Your task to perform on an android device: turn off picture-in-picture Image 0: 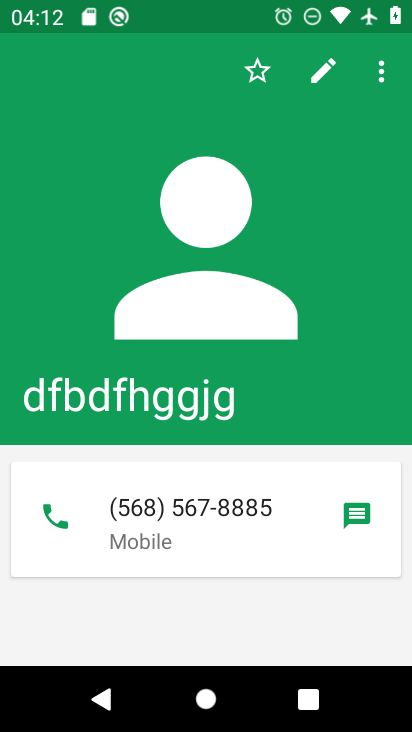
Step 0: press home button
Your task to perform on an android device: turn off picture-in-picture Image 1: 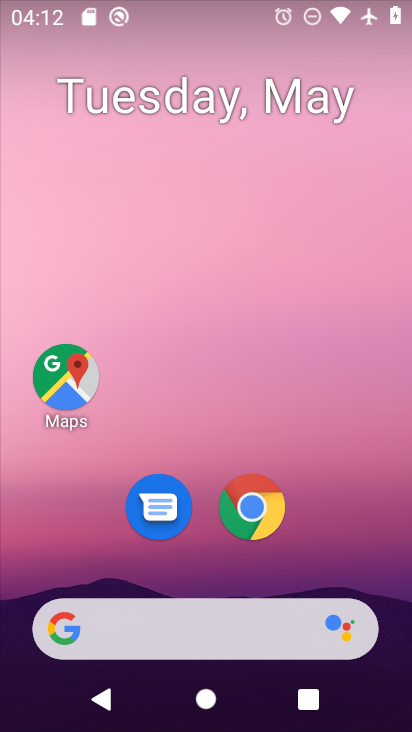
Step 1: click (241, 525)
Your task to perform on an android device: turn off picture-in-picture Image 2: 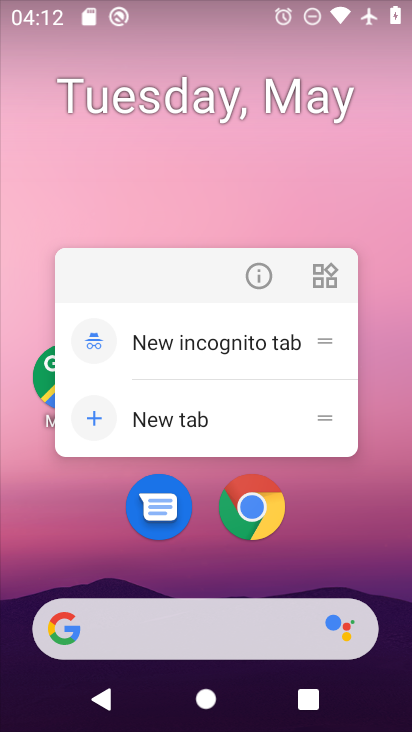
Step 2: click (250, 274)
Your task to perform on an android device: turn off picture-in-picture Image 3: 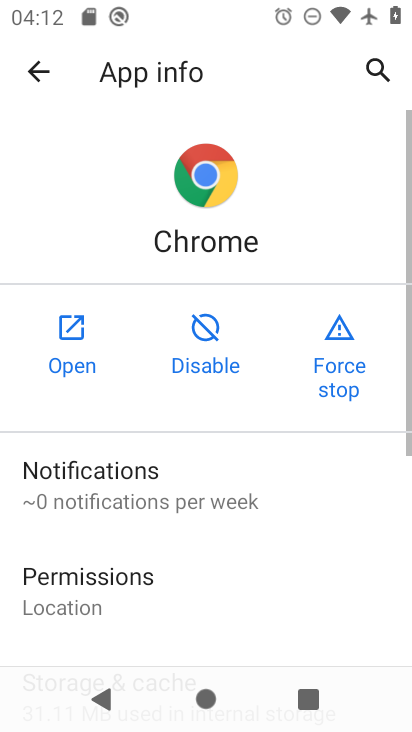
Step 3: drag from (181, 567) to (217, 173)
Your task to perform on an android device: turn off picture-in-picture Image 4: 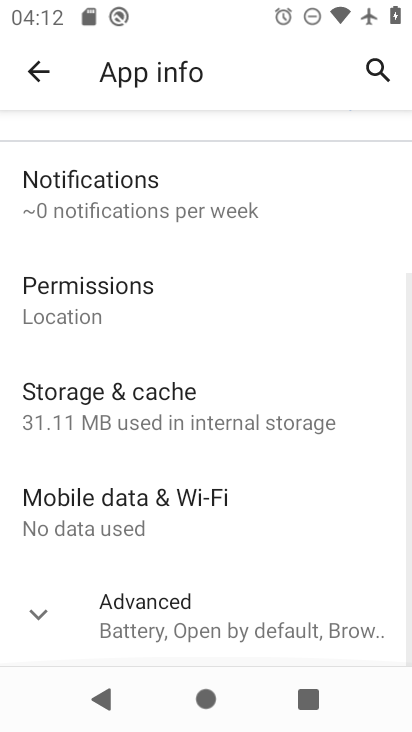
Step 4: drag from (217, 509) to (211, 314)
Your task to perform on an android device: turn off picture-in-picture Image 5: 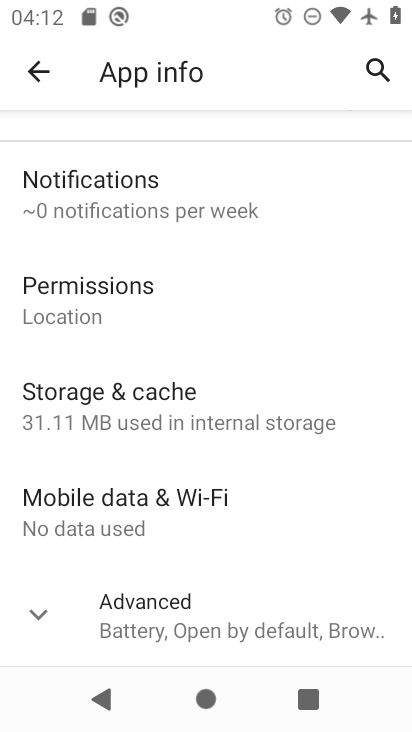
Step 5: click (207, 590)
Your task to perform on an android device: turn off picture-in-picture Image 6: 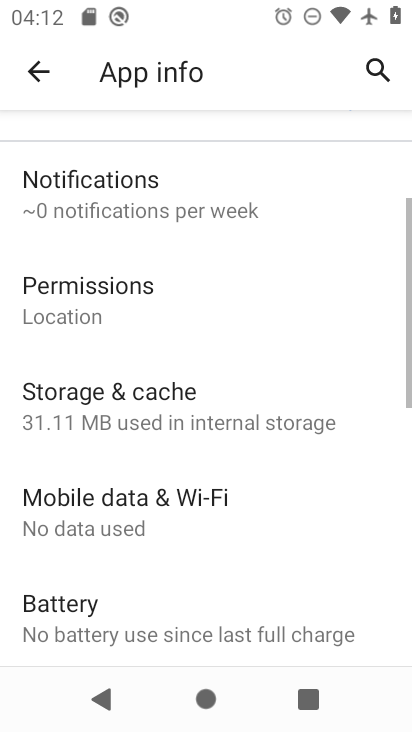
Step 6: drag from (216, 588) to (228, 305)
Your task to perform on an android device: turn off picture-in-picture Image 7: 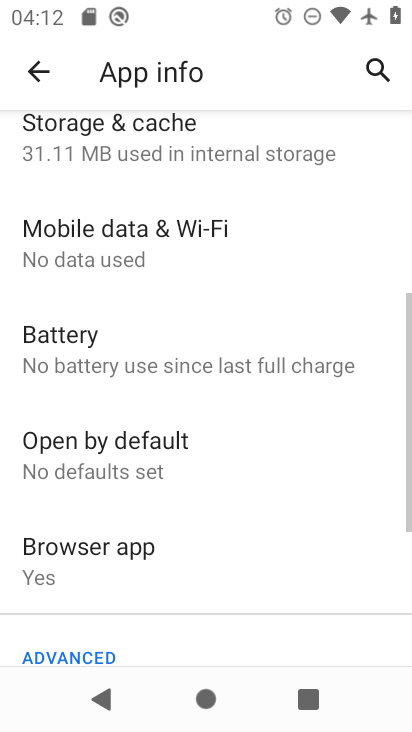
Step 7: drag from (209, 599) to (195, 365)
Your task to perform on an android device: turn off picture-in-picture Image 8: 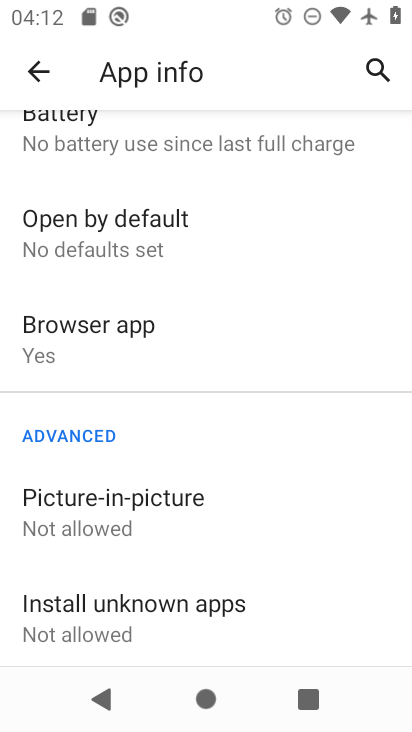
Step 8: click (178, 509)
Your task to perform on an android device: turn off picture-in-picture Image 9: 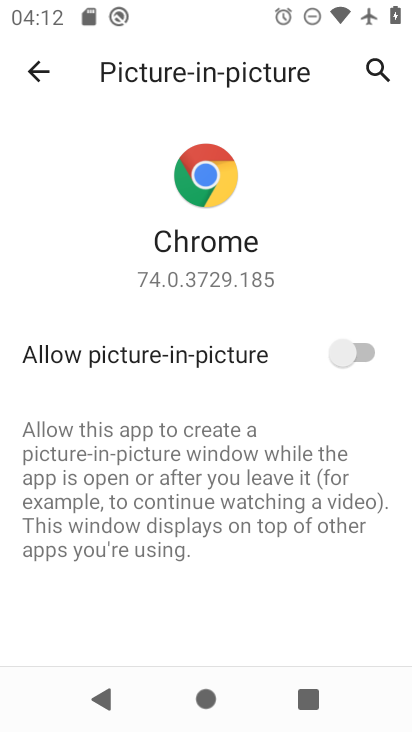
Step 9: task complete